Your task to perform on an android device: Do I have any events this weekend? Image 0: 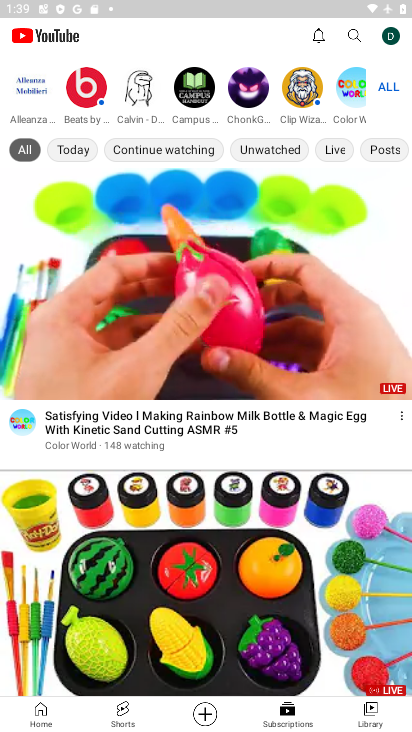
Step 0: press home button
Your task to perform on an android device: Do I have any events this weekend? Image 1: 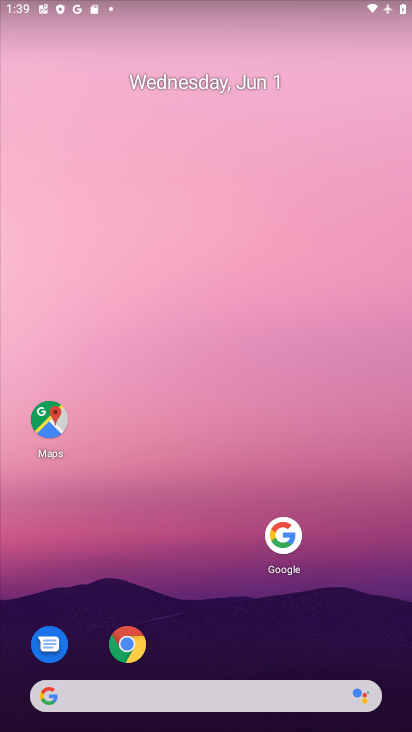
Step 1: drag from (144, 692) to (283, 247)
Your task to perform on an android device: Do I have any events this weekend? Image 2: 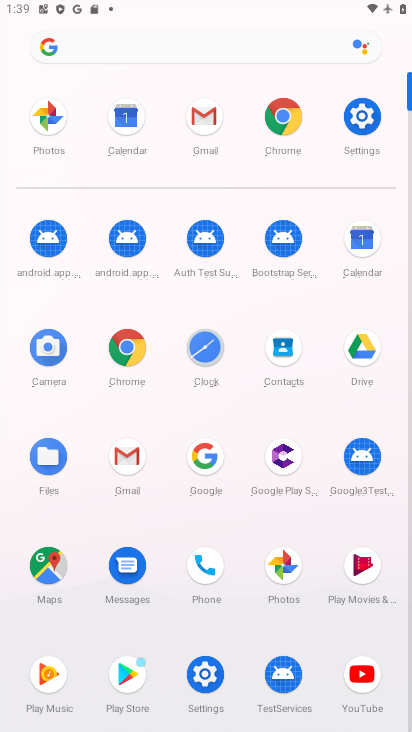
Step 2: click (363, 239)
Your task to perform on an android device: Do I have any events this weekend? Image 3: 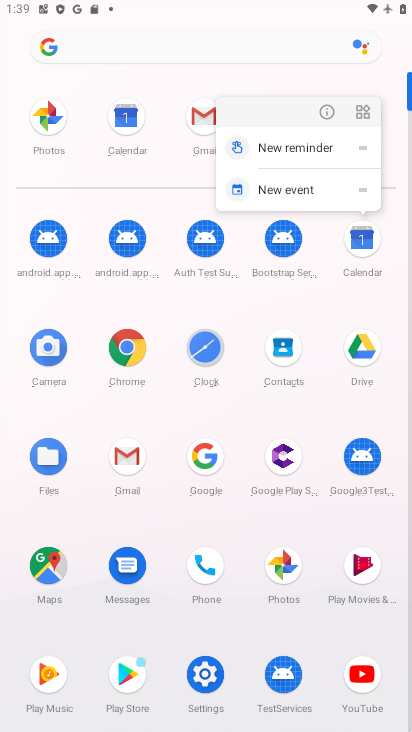
Step 3: click (363, 239)
Your task to perform on an android device: Do I have any events this weekend? Image 4: 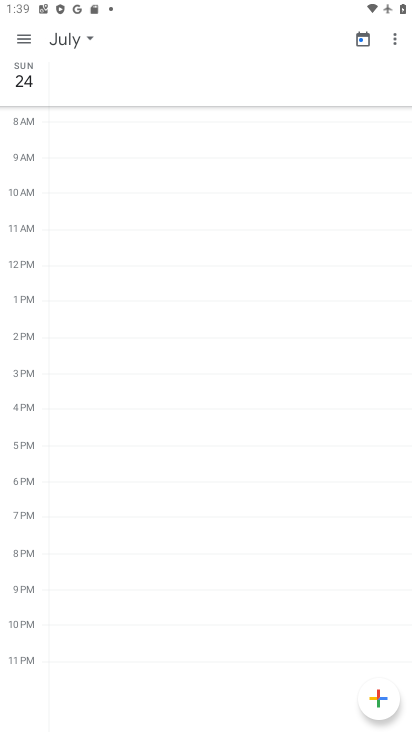
Step 4: click (65, 39)
Your task to perform on an android device: Do I have any events this weekend? Image 5: 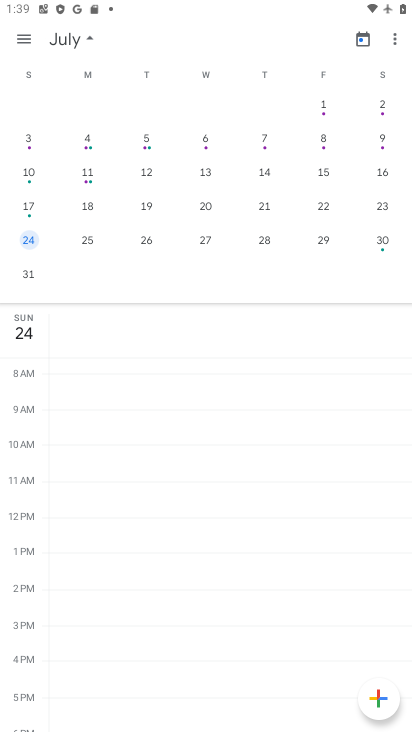
Step 5: click (382, 110)
Your task to perform on an android device: Do I have any events this weekend? Image 6: 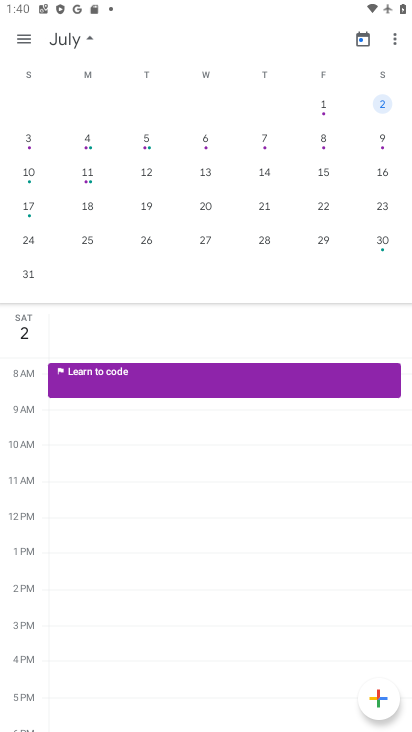
Step 6: drag from (81, 204) to (364, 198)
Your task to perform on an android device: Do I have any events this weekend? Image 7: 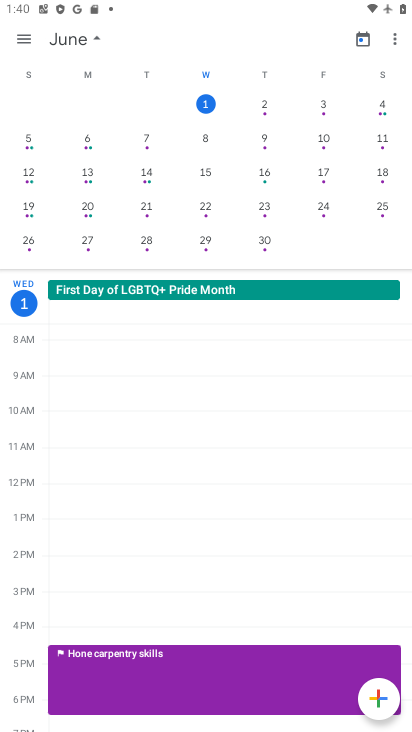
Step 7: click (382, 105)
Your task to perform on an android device: Do I have any events this weekend? Image 8: 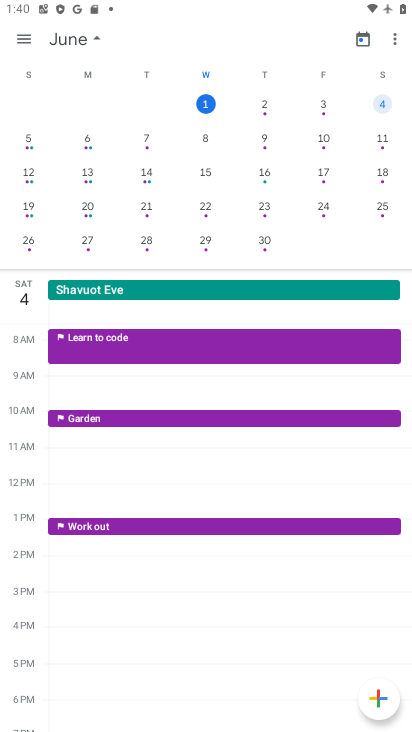
Step 8: click (18, 38)
Your task to perform on an android device: Do I have any events this weekend? Image 9: 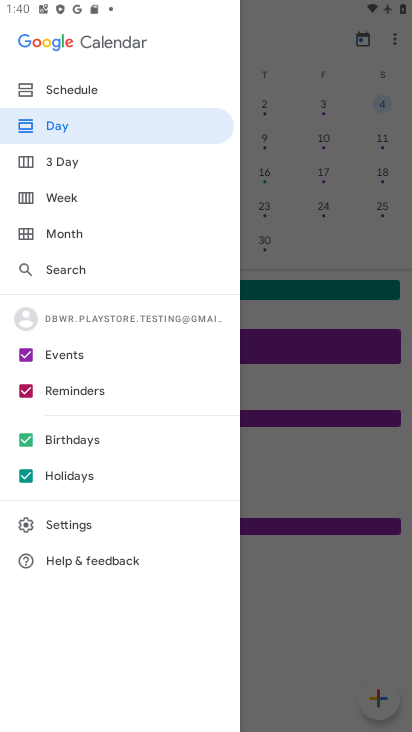
Step 9: click (54, 123)
Your task to perform on an android device: Do I have any events this weekend? Image 10: 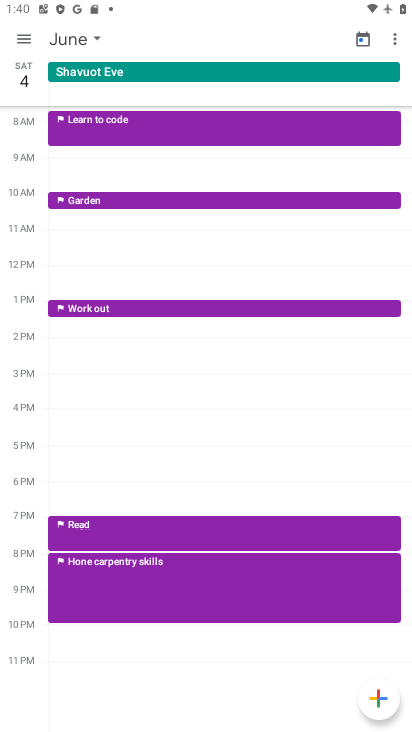
Step 10: click (21, 42)
Your task to perform on an android device: Do I have any events this weekend? Image 11: 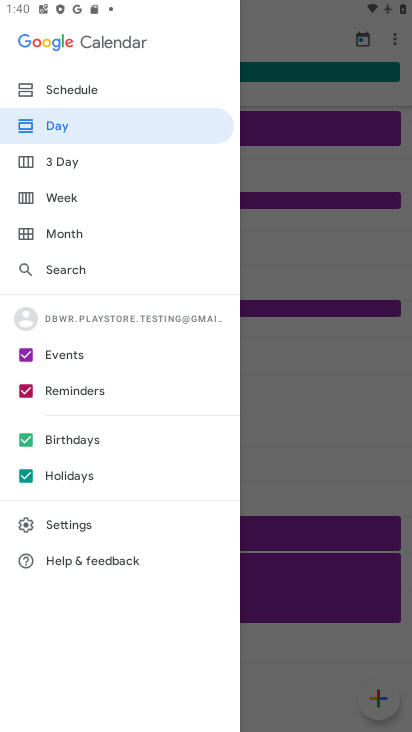
Step 11: click (80, 84)
Your task to perform on an android device: Do I have any events this weekend? Image 12: 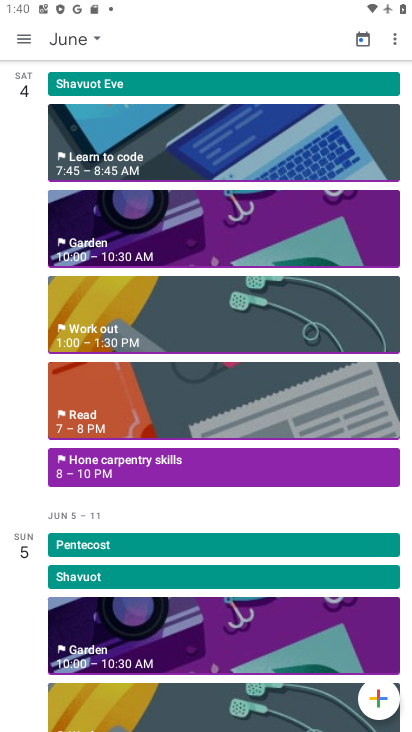
Step 12: click (159, 230)
Your task to perform on an android device: Do I have any events this weekend? Image 13: 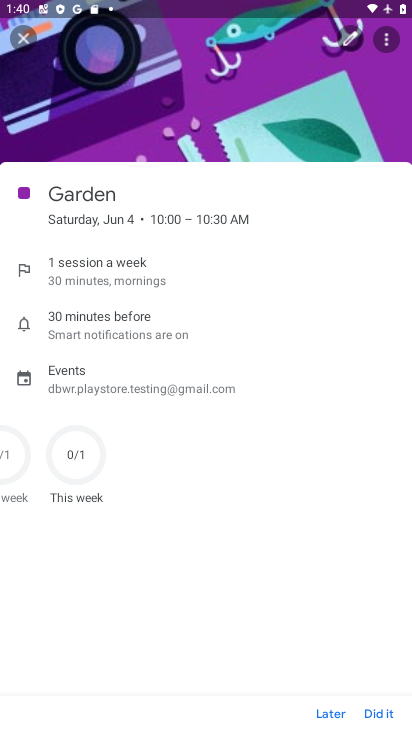
Step 13: task complete